Your task to perform on an android device: Go to accessibility settings Image 0: 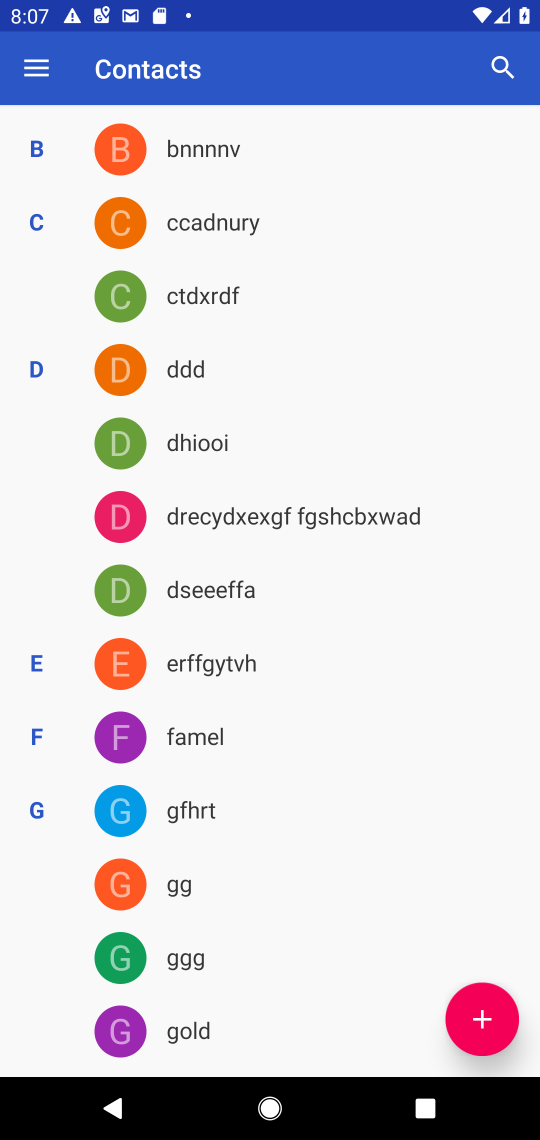
Step 0: press home button
Your task to perform on an android device: Go to accessibility settings Image 1: 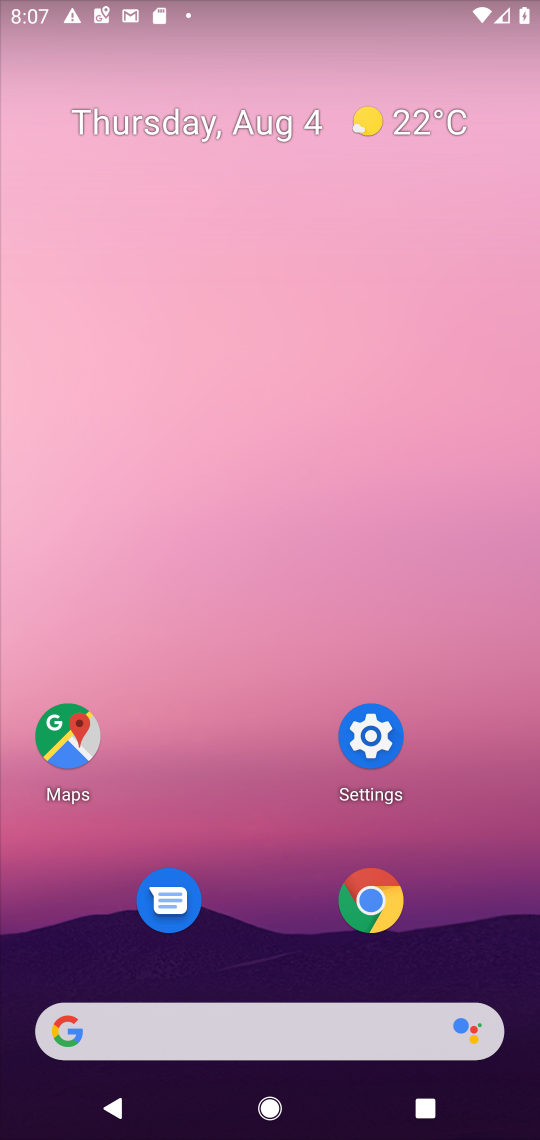
Step 1: click (366, 738)
Your task to perform on an android device: Go to accessibility settings Image 2: 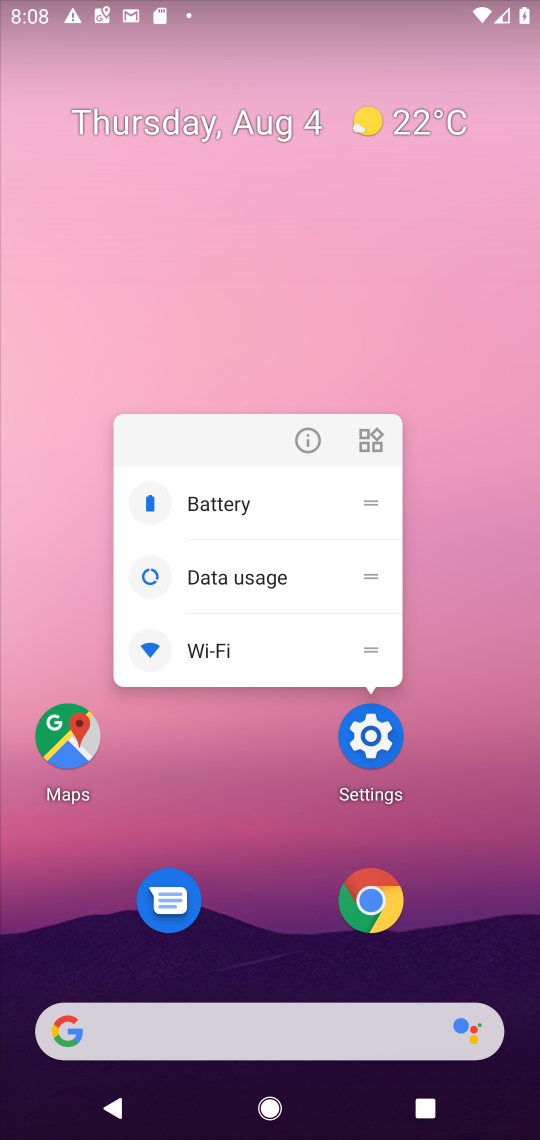
Step 2: click (366, 738)
Your task to perform on an android device: Go to accessibility settings Image 3: 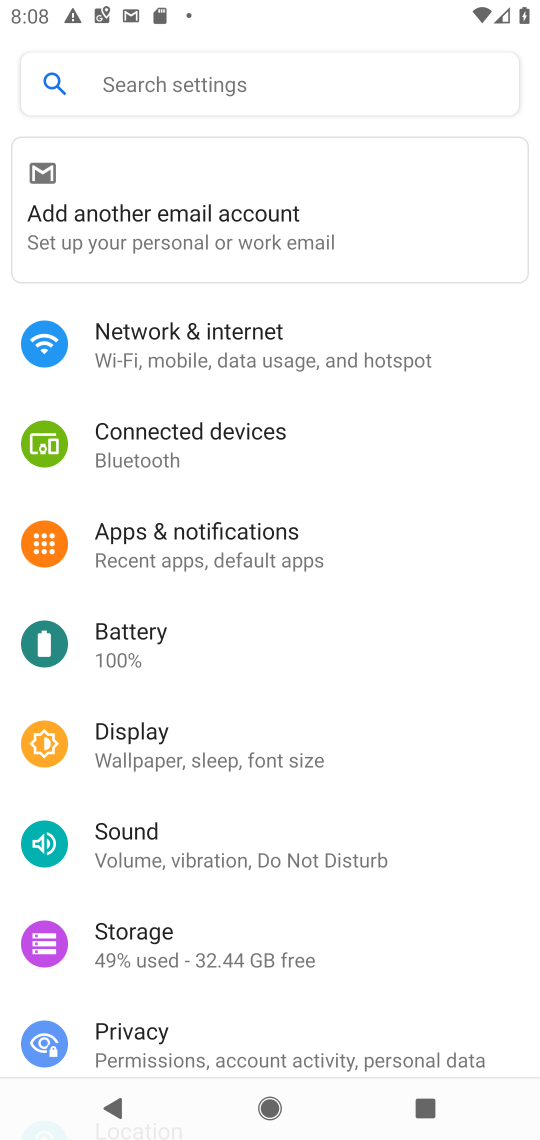
Step 3: drag from (302, 976) to (395, 105)
Your task to perform on an android device: Go to accessibility settings Image 4: 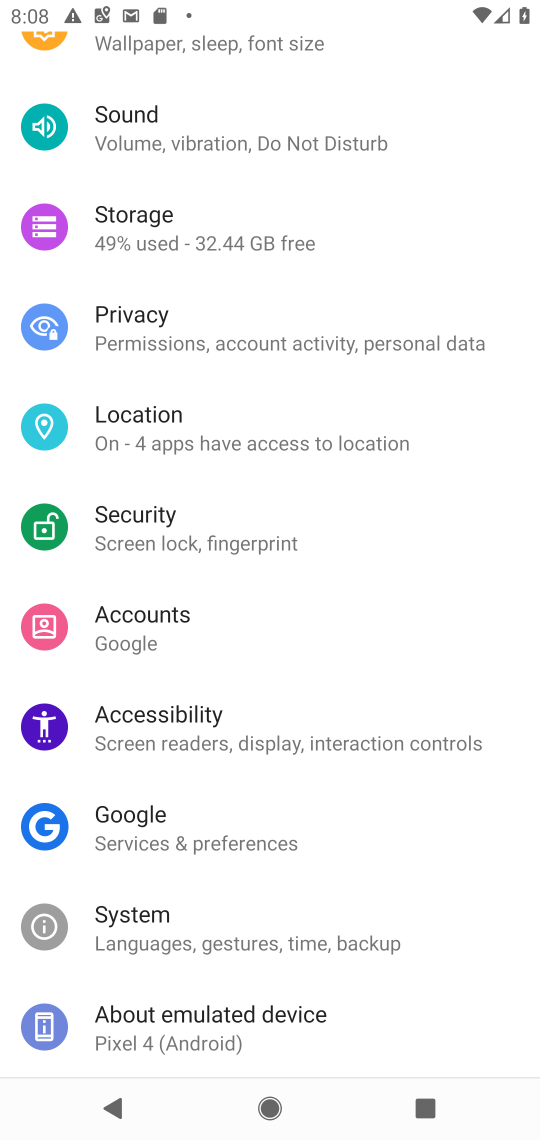
Step 4: click (218, 723)
Your task to perform on an android device: Go to accessibility settings Image 5: 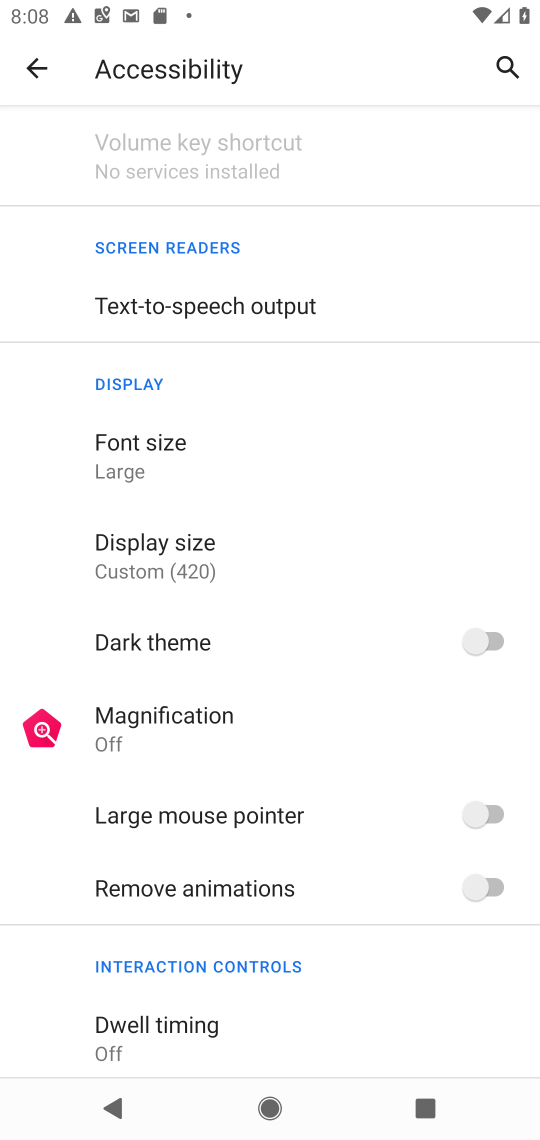
Step 5: task complete